Your task to perform on an android device: Go to Wikipedia Image 0: 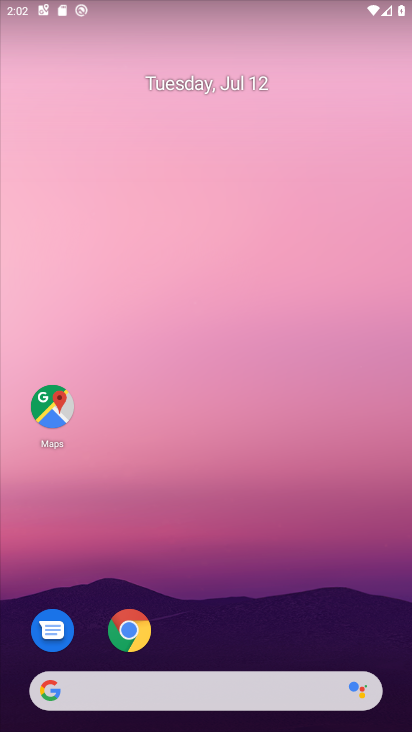
Step 0: drag from (203, 623) to (202, 263)
Your task to perform on an android device: Go to Wikipedia Image 1: 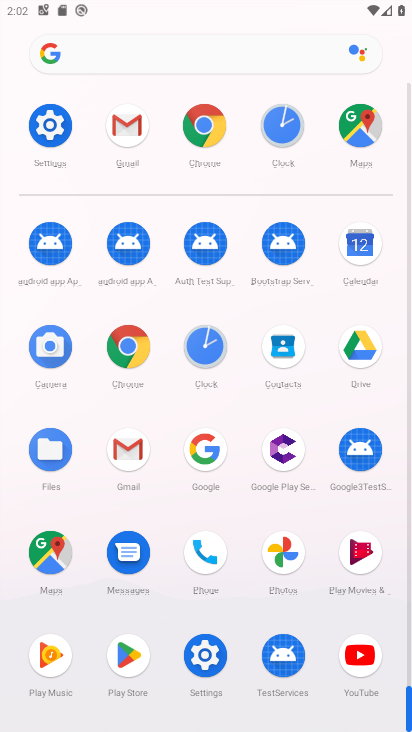
Step 1: click (200, 151)
Your task to perform on an android device: Go to Wikipedia Image 2: 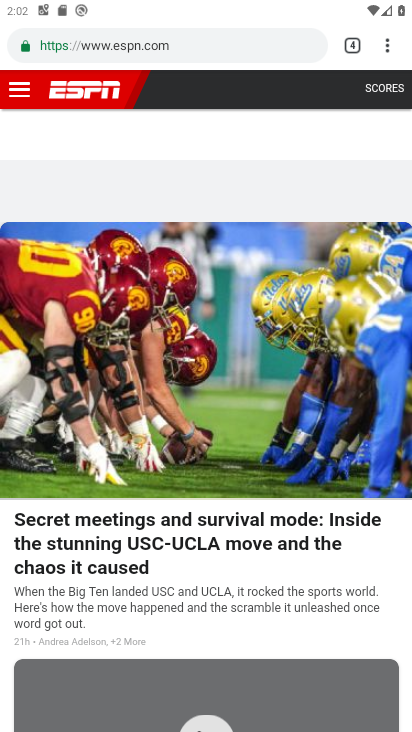
Step 2: drag from (278, 39) to (226, 215)
Your task to perform on an android device: Go to Wikipedia Image 3: 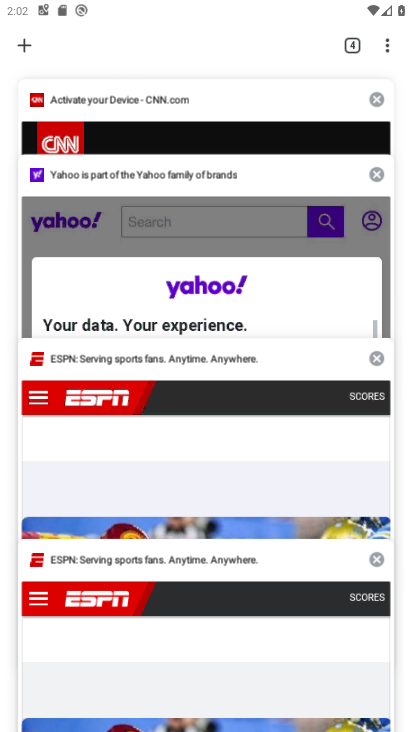
Step 3: click (26, 42)
Your task to perform on an android device: Go to Wikipedia Image 4: 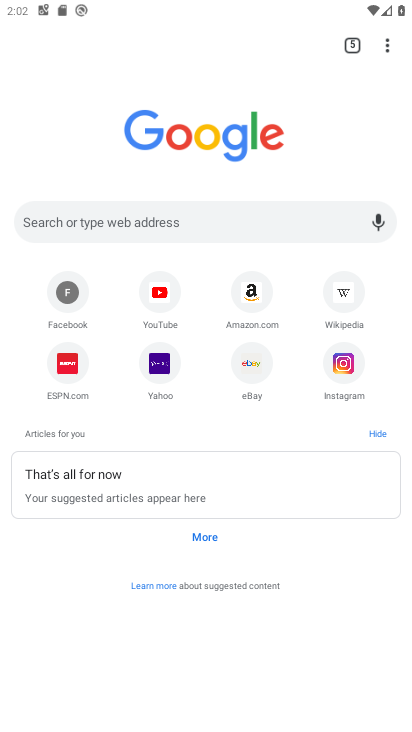
Step 4: click (357, 304)
Your task to perform on an android device: Go to Wikipedia Image 5: 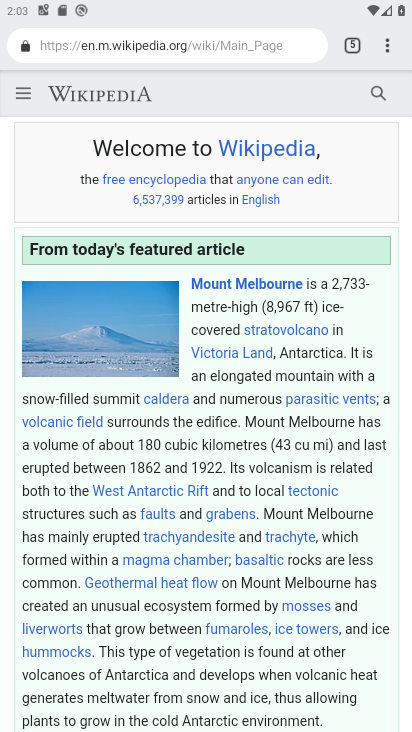
Step 5: task complete